Your task to perform on an android device: Go to battery settings Image 0: 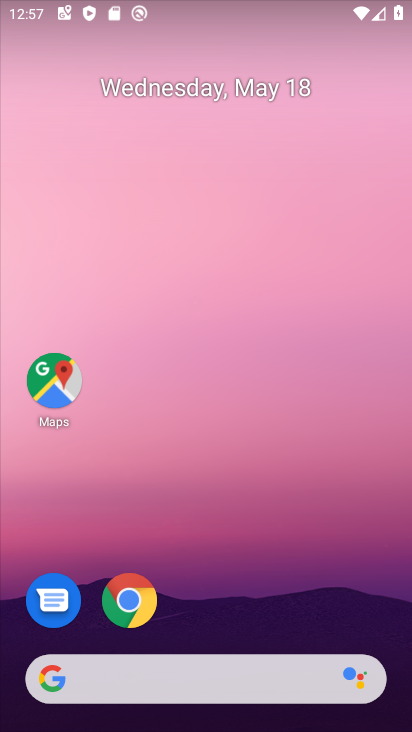
Step 0: drag from (268, 577) to (189, 100)
Your task to perform on an android device: Go to battery settings Image 1: 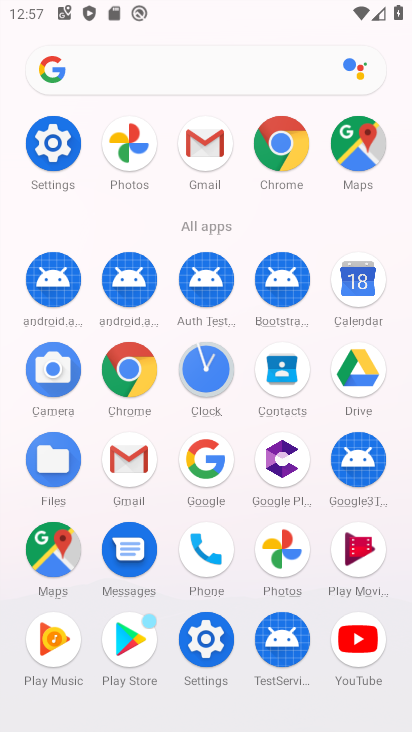
Step 1: click (51, 145)
Your task to perform on an android device: Go to battery settings Image 2: 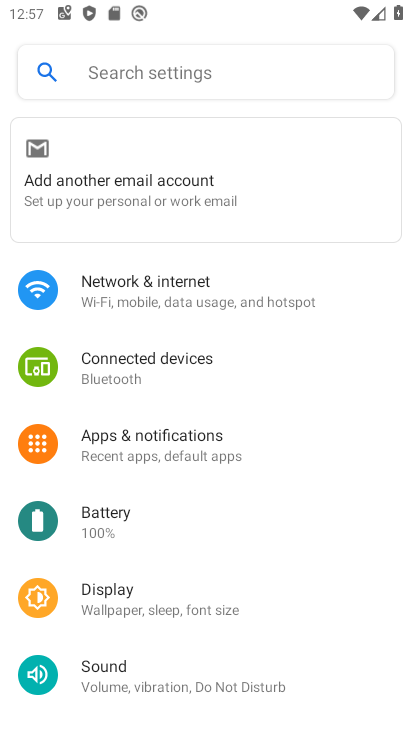
Step 2: drag from (154, 489) to (207, 390)
Your task to perform on an android device: Go to battery settings Image 3: 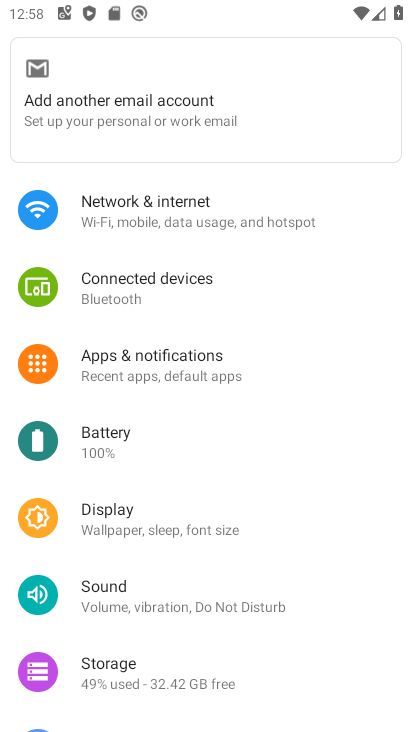
Step 3: click (87, 430)
Your task to perform on an android device: Go to battery settings Image 4: 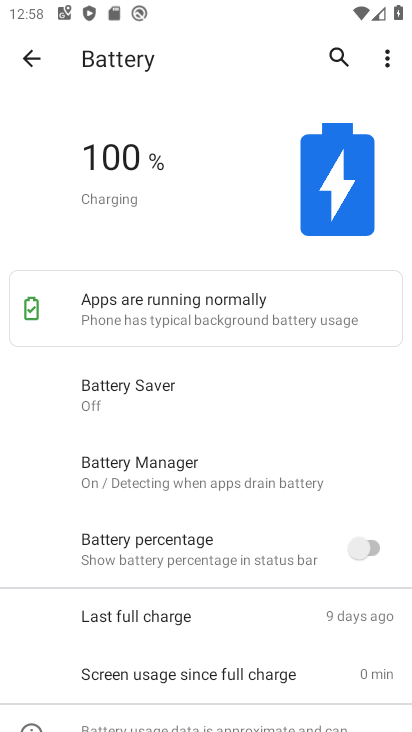
Step 4: task complete